Your task to perform on an android device: set an alarm Image 0: 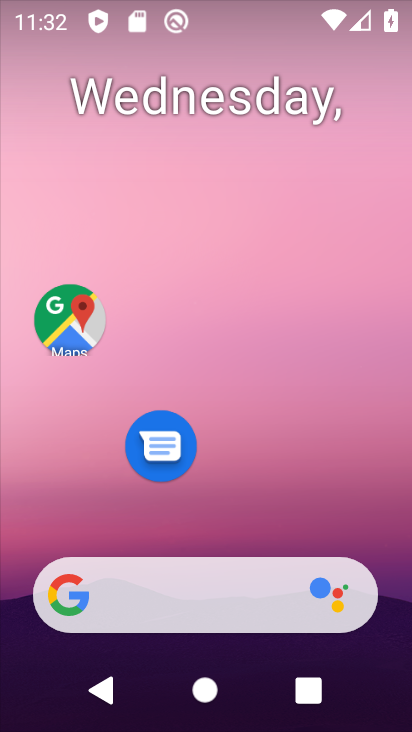
Step 0: drag from (179, 502) to (155, 107)
Your task to perform on an android device: set an alarm Image 1: 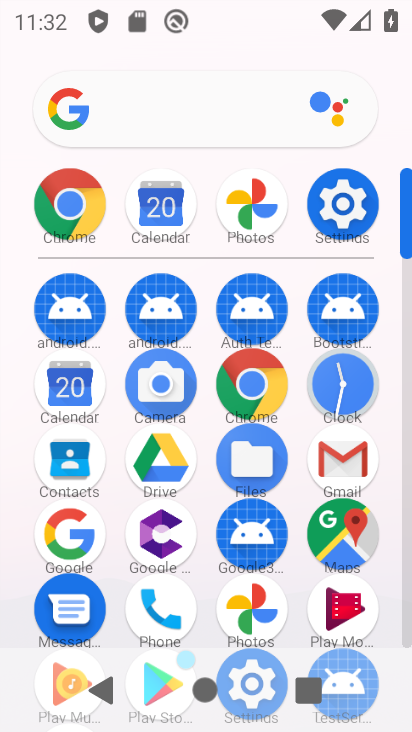
Step 1: click (337, 391)
Your task to perform on an android device: set an alarm Image 2: 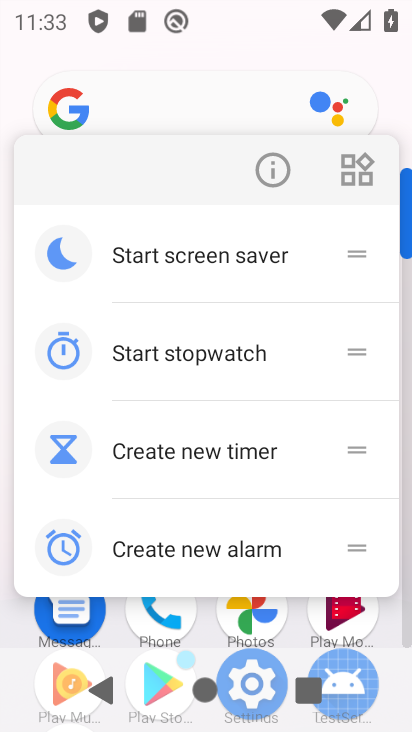
Step 2: click (200, 552)
Your task to perform on an android device: set an alarm Image 3: 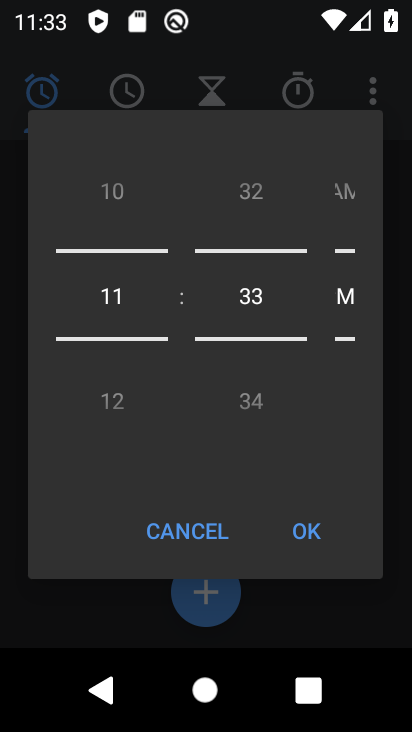
Step 3: click (304, 526)
Your task to perform on an android device: set an alarm Image 4: 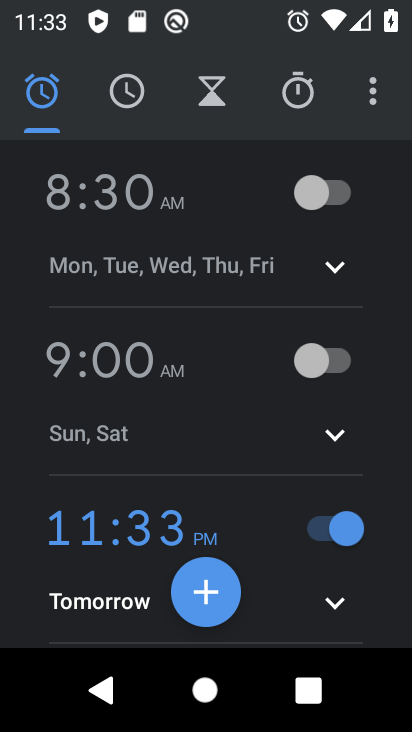
Step 4: click (336, 606)
Your task to perform on an android device: set an alarm Image 5: 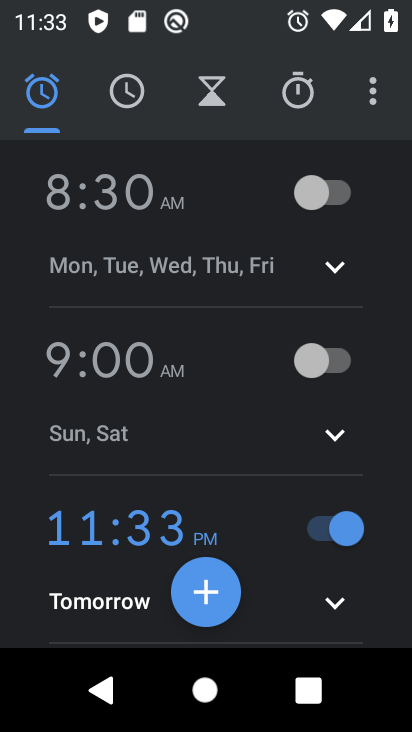
Step 5: task complete